Your task to perform on an android device: Go to Wikipedia Image 0: 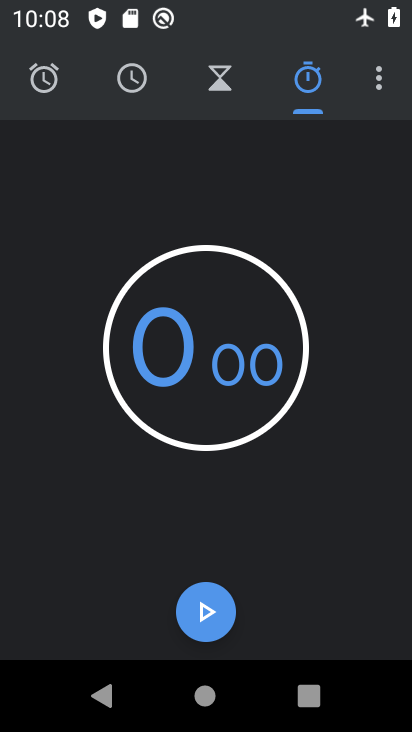
Step 0: press home button
Your task to perform on an android device: Go to Wikipedia Image 1: 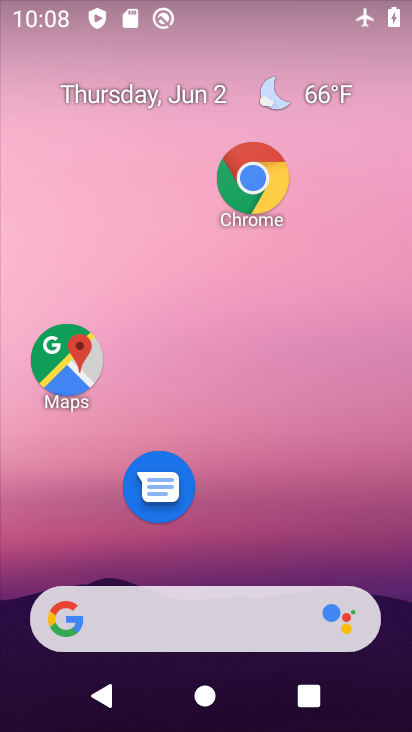
Step 1: click (253, 180)
Your task to perform on an android device: Go to Wikipedia Image 2: 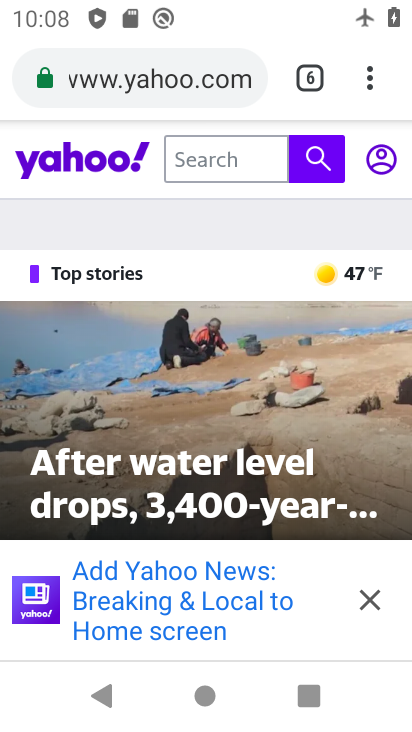
Step 2: click (372, 84)
Your task to perform on an android device: Go to Wikipedia Image 3: 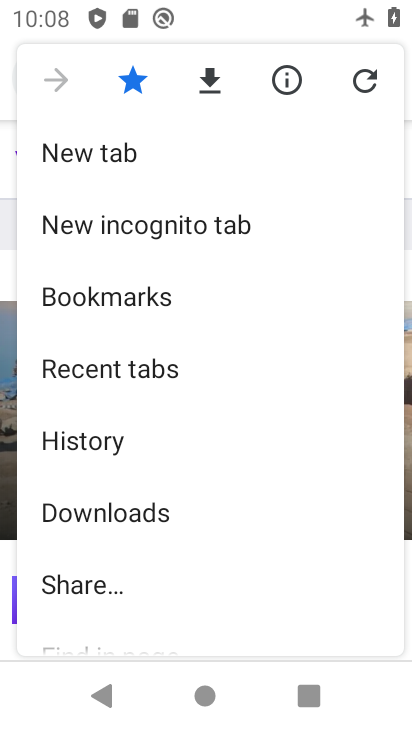
Step 3: click (83, 154)
Your task to perform on an android device: Go to Wikipedia Image 4: 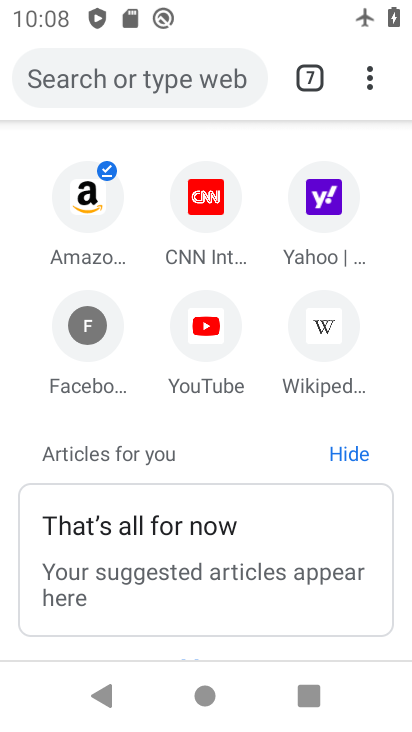
Step 4: click (329, 340)
Your task to perform on an android device: Go to Wikipedia Image 5: 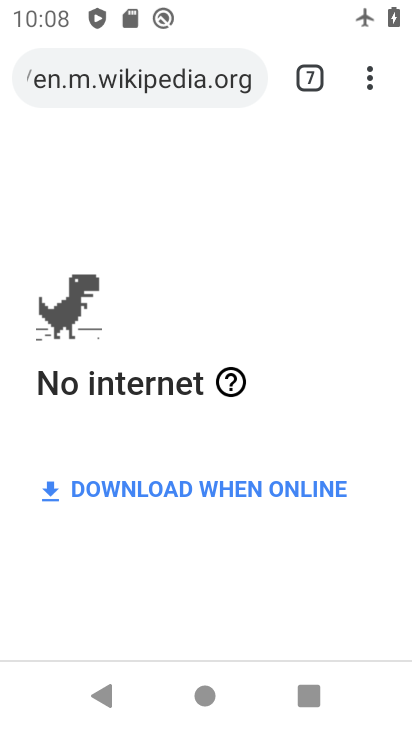
Step 5: task complete